Your task to perform on an android device: install app "Skype" Image 0: 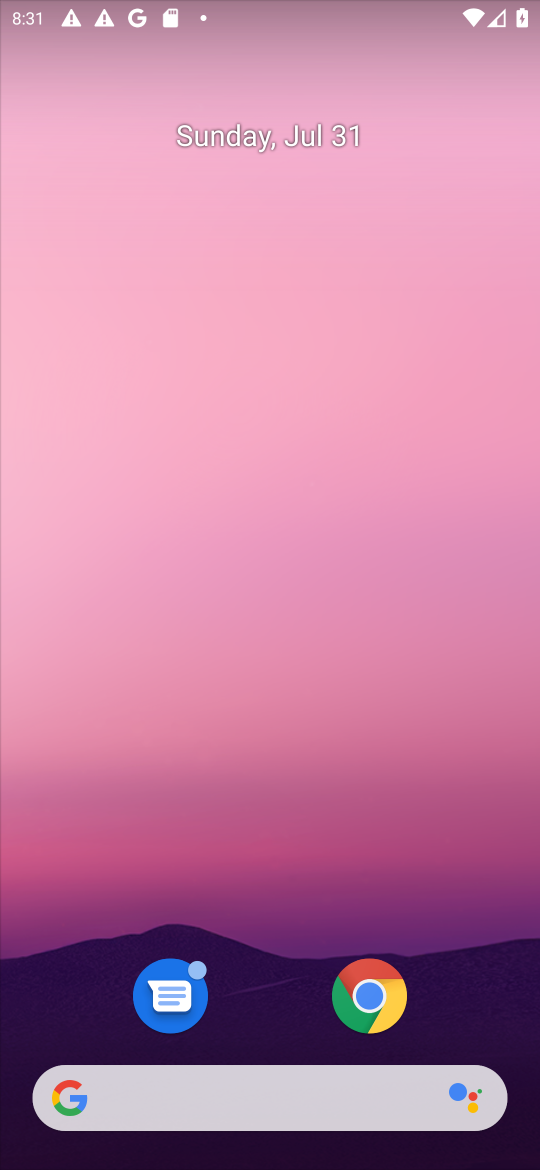
Step 0: press home button
Your task to perform on an android device: install app "Skype" Image 1: 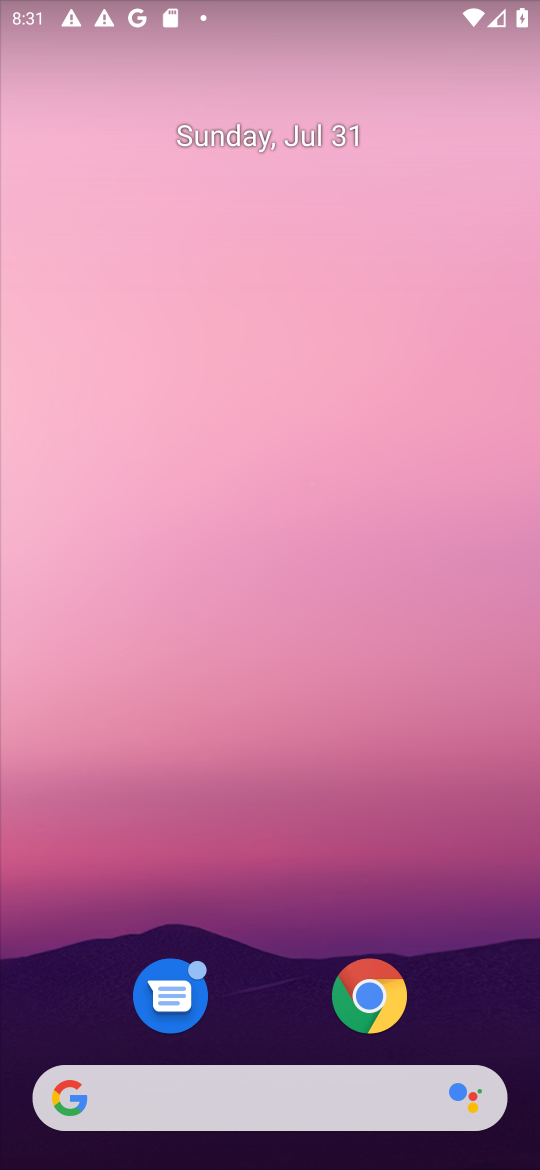
Step 1: drag from (460, 1026) to (447, 110)
Your task to perform on an android device: install app "Skype" Image 2: 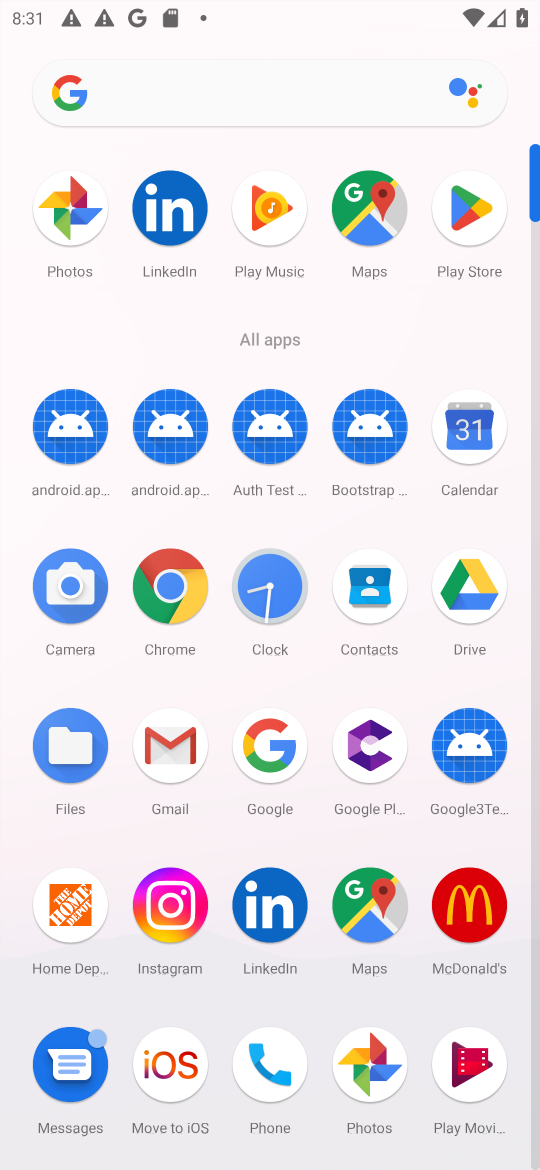
Step 2: click (472, 207)
Your task to perform on an android device: install app "Skype" Image 3: 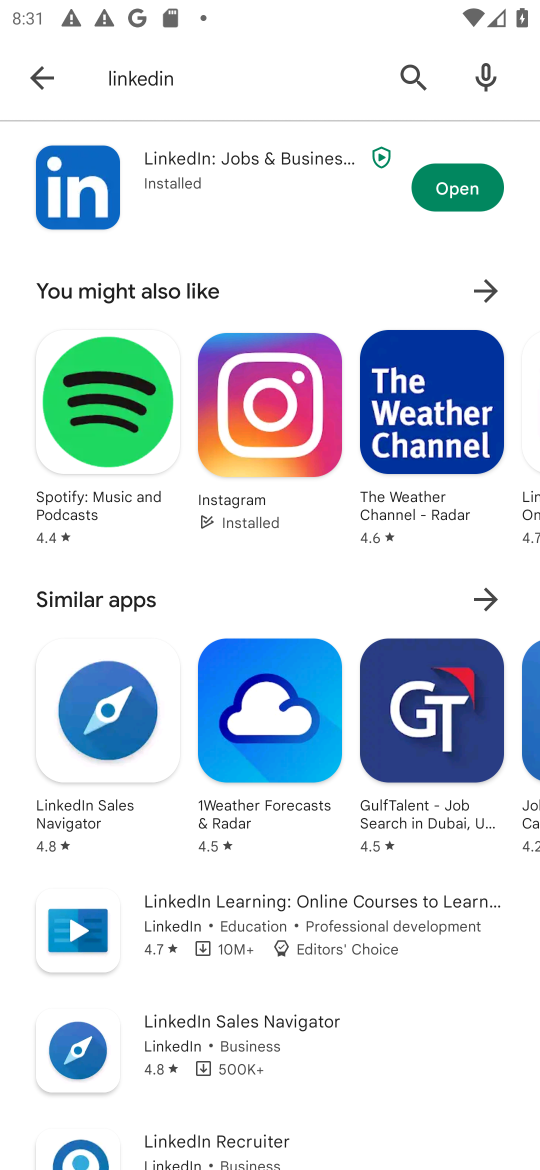
Step 3: press back button
Your task to perform on an android device: install app "Skype" Image 4: 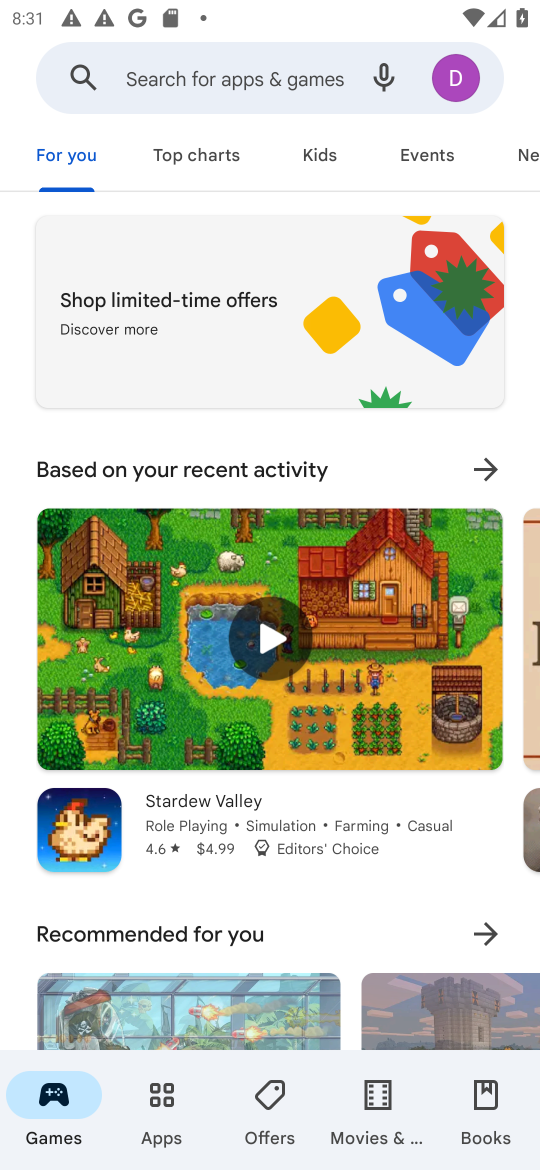
Step 4: click (180, 77)
Your task to perform on an android device: install app "Skype" Image 5: 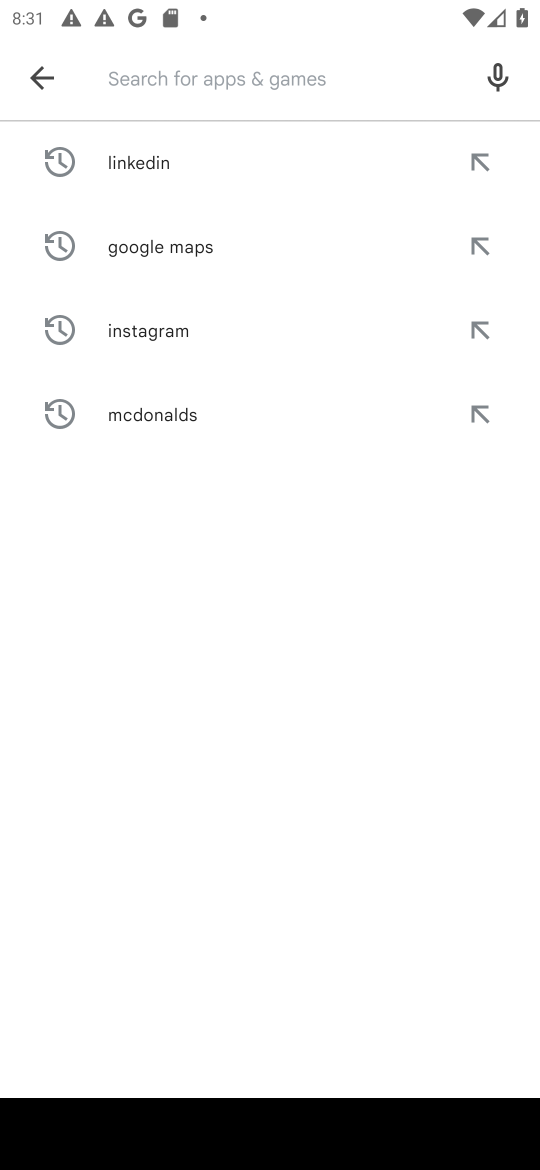
Step 5: type "skype"
Your task to perform on an android device: install app "Skype" Image 6: 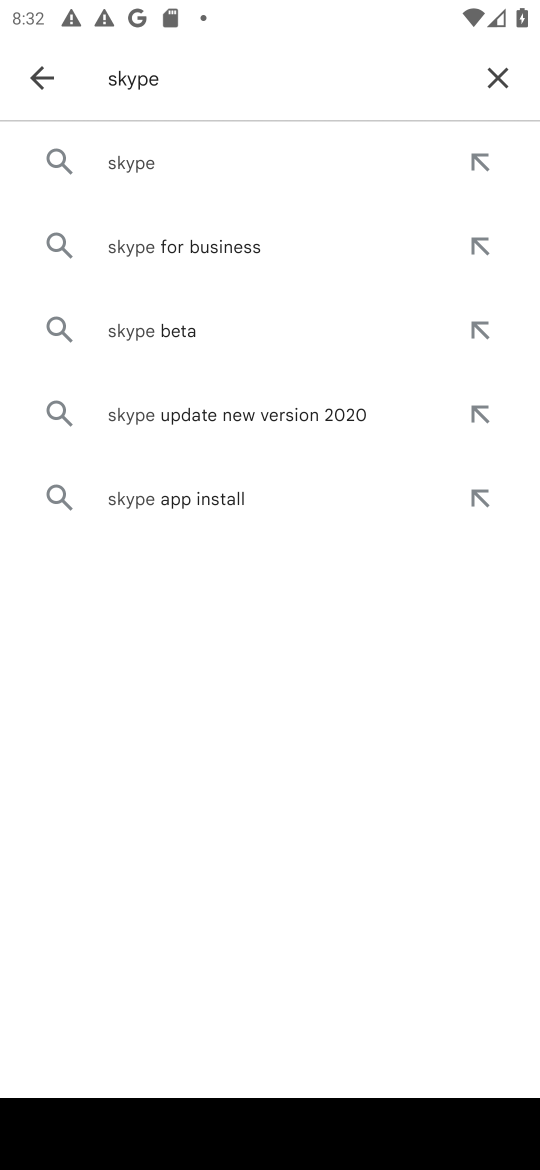
Step 6: click (217, 149)
Your task to perform on an android device: install app "Skype" Image 7: 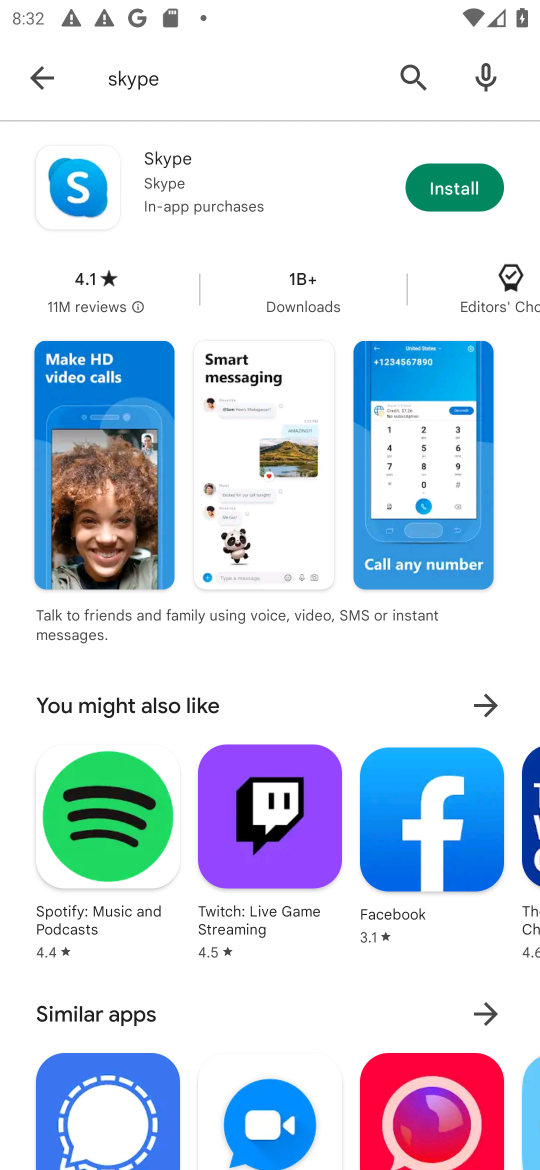
Step 7: click (441, 173)
Your task to perform on an android device: install app "Skype" Image 8: 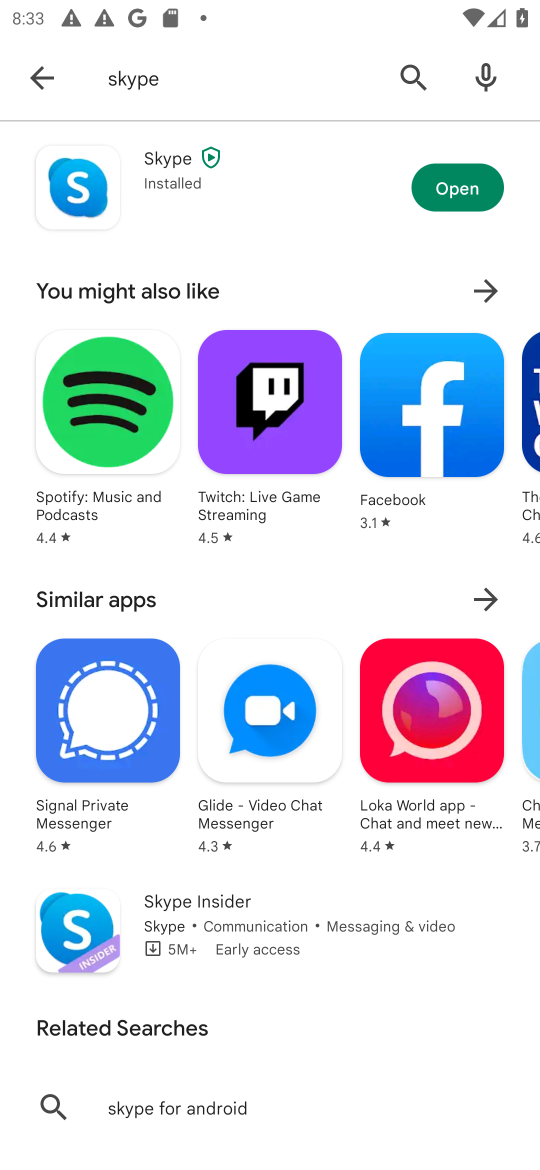
Step 8: task complete